Your task to perform on an android device: allow cookies in the chrome app Image 0: 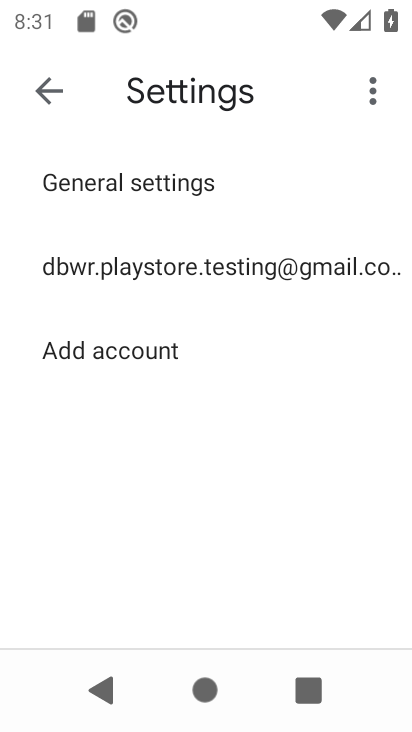
Step 0: press home button
Your task to perform on an android device: allow cookies in the chrome app Image 1: 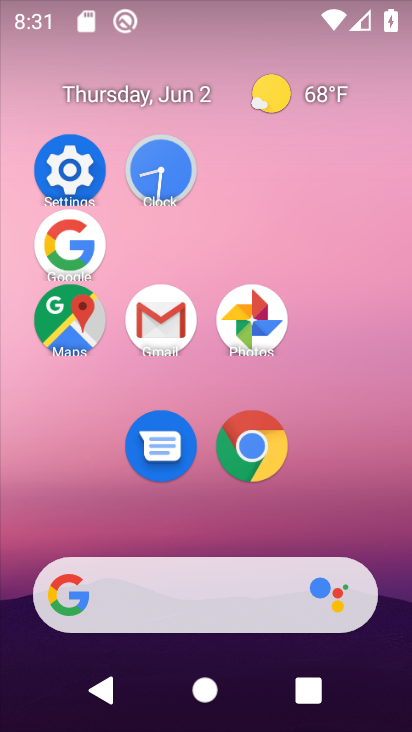
Step 1: click (281, 462)
Your task to perform on an android device: allow cookies in the chrome app Image 2: 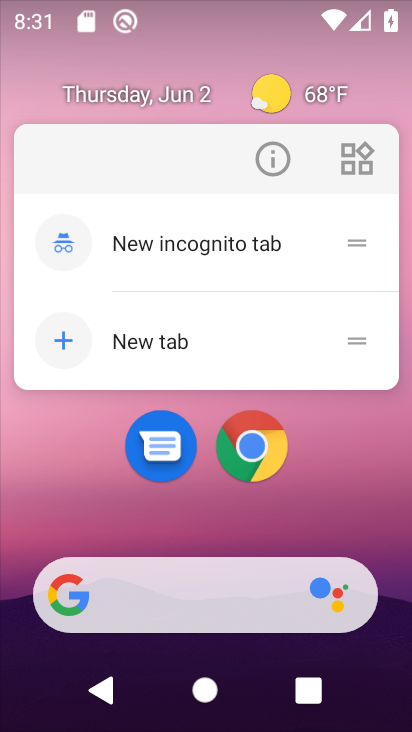
Step 2: click (271, 418)
Your task to perform on an android device: allow cookies in the chrome app Image 3: 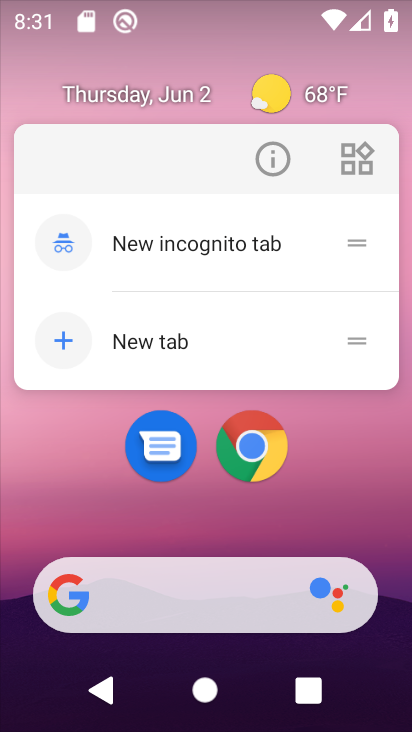
Step 3: click (250, 463)
Your task to perform on an android device: allow cookies in the chrome app Image 4: 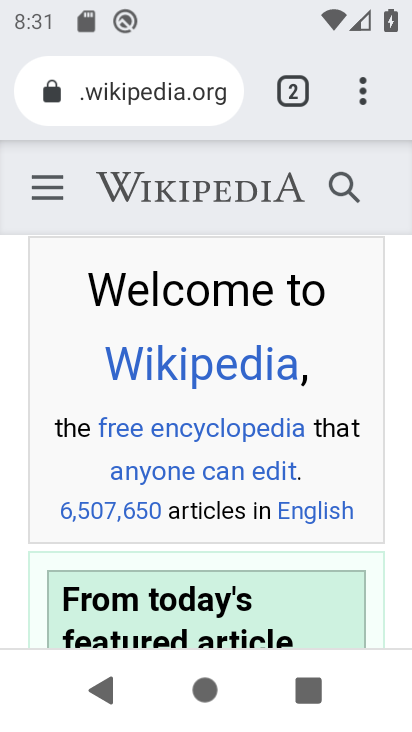
Step 4: click (366, 92)
Your task to perform on an android device: allow cookies in the chrome app Image 5: 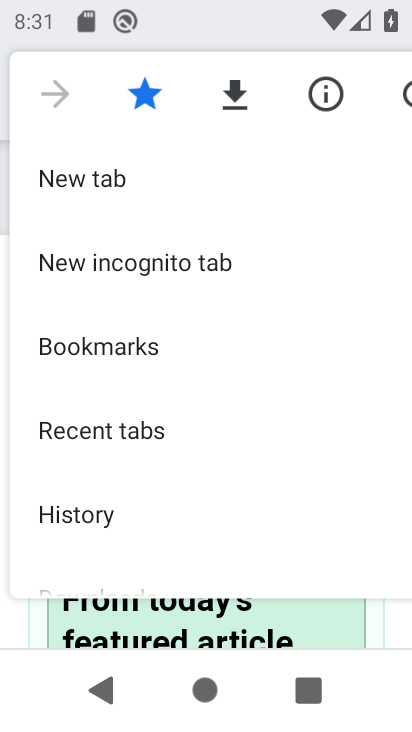
Step 5: drag from (213, 466) to (250, 185)
Your task to perform on an android device: allow cookies in the chrome app Image 6: 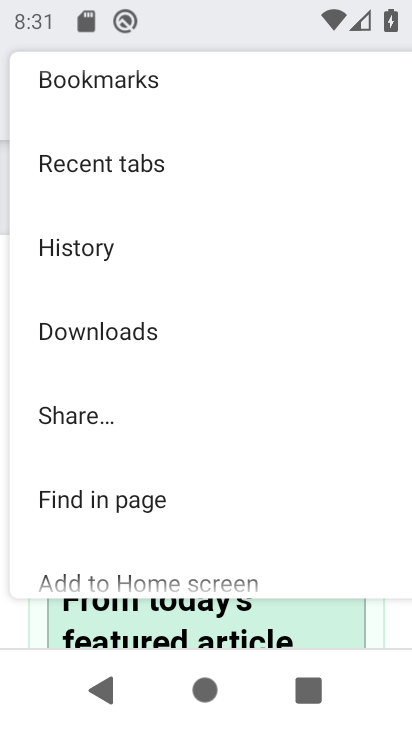
Step 6: drag from (159, 500) to (154, 138)
Your task to perform on an android device: allow cookies in the chrome app Image 7: 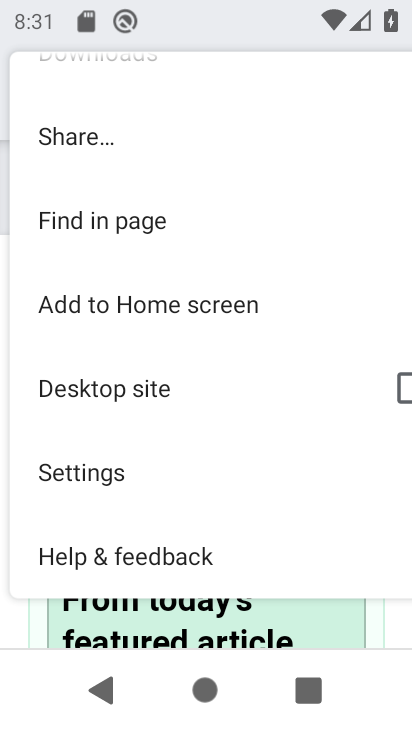
Step 7: click (97, 466)
Your task to perform on an android device: allow cookies in the chrome app Image 8: 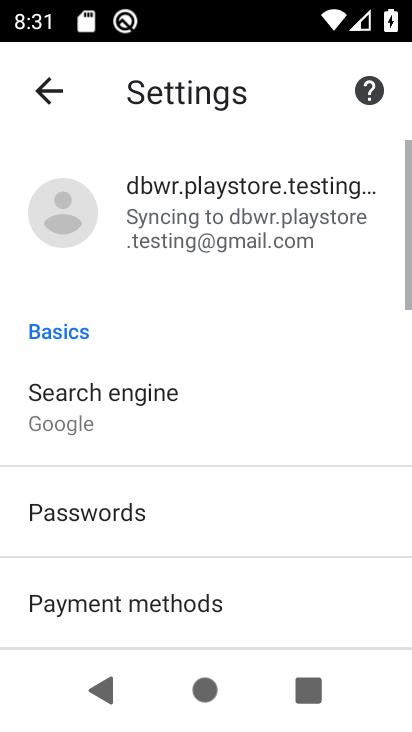
Step 8: drag from (169, 512) to (166, 135)
Your task to perform on an android device: allow cookies in the chrome app Image 9: 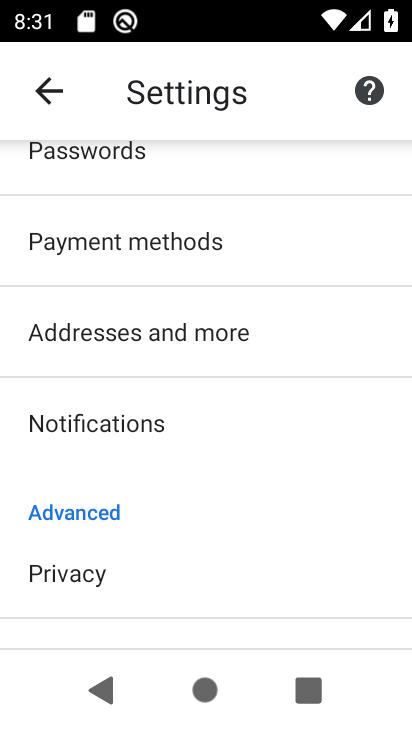
Step 9: drag from (164, 572) to (198, 173)
Your task to perform on an android device: allow cookies in the chrome app Image 10: 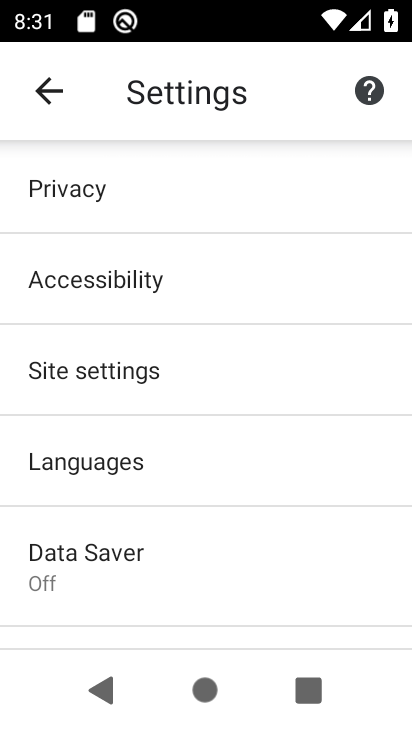
Step 10: click (154, 363)
Your task to perform on an android device: allow cookies in the chrome app Image 11: 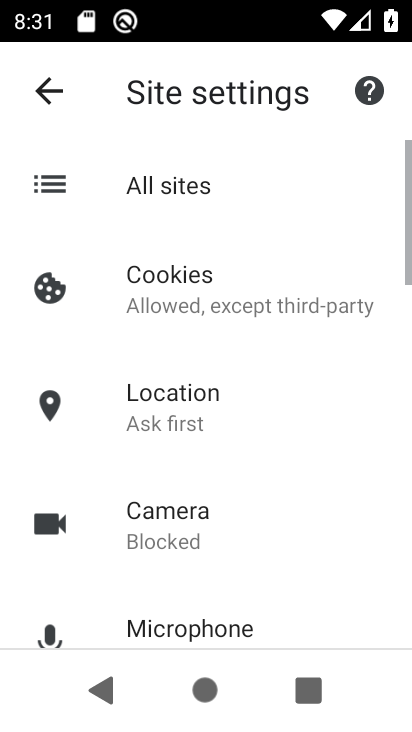
Step 11: click (264, 277)
Your task to perform on an android device: allow cookies in the chrome app Image 12: 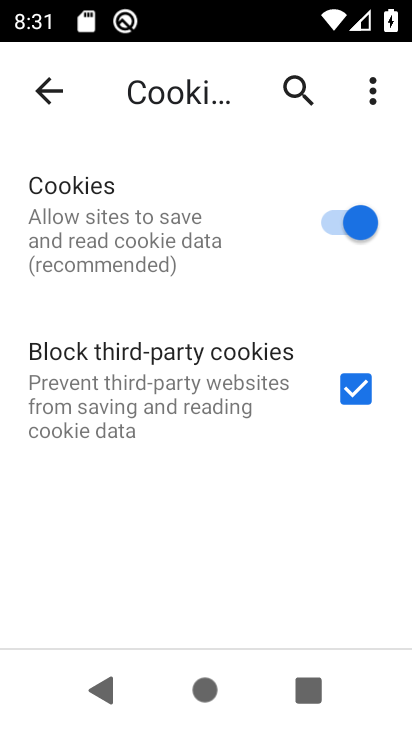
Step 12: task complete